Your task to perform on an android device: What's the weather today? Image 0: 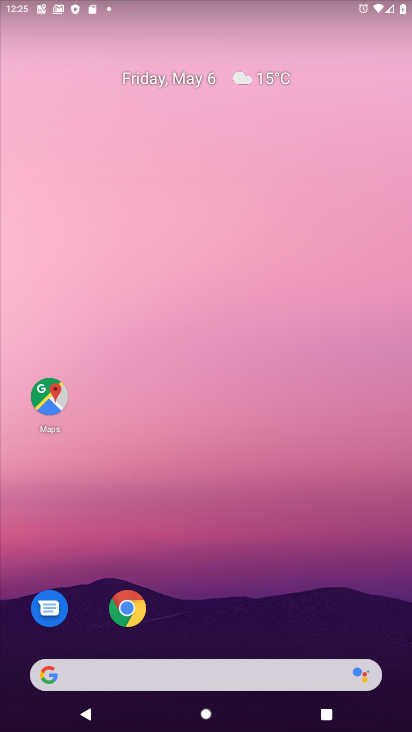
Step 0: click (137, 610)
Your task to perform on an android device: What's the weather today? Image 1: 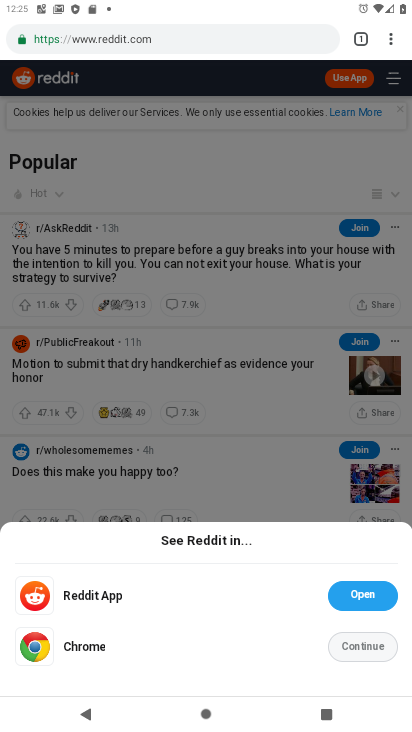
Step 1: click (165, 37)
Your task to perform on an android device: What's the weather today? Image 2: 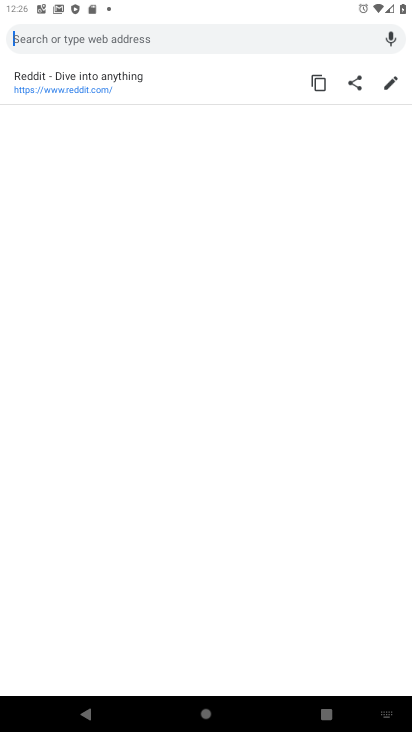
Step 2: type "whats the weather today?"
Your task to perform on an android device: What's the weather today? Image 3: 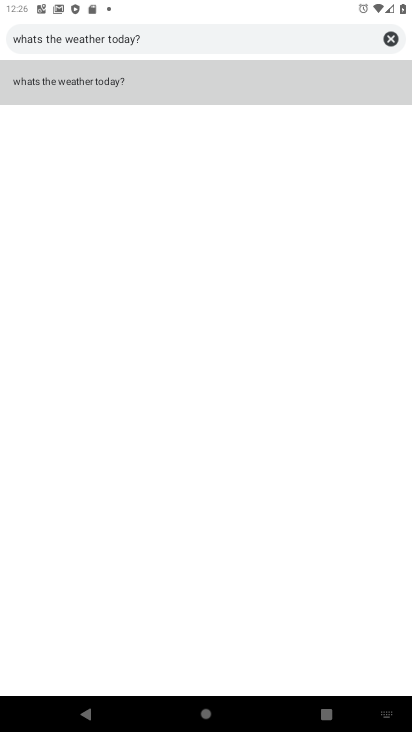
Step 3: click (140, 92)
Your task to perform on an android device: What's the weather today? Image 4: 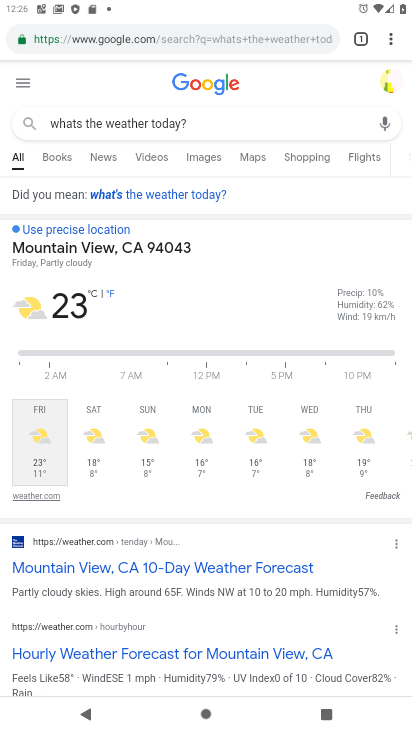
Step 4: task complete